Your task to perform on an android device: Open notification settings Image 0: 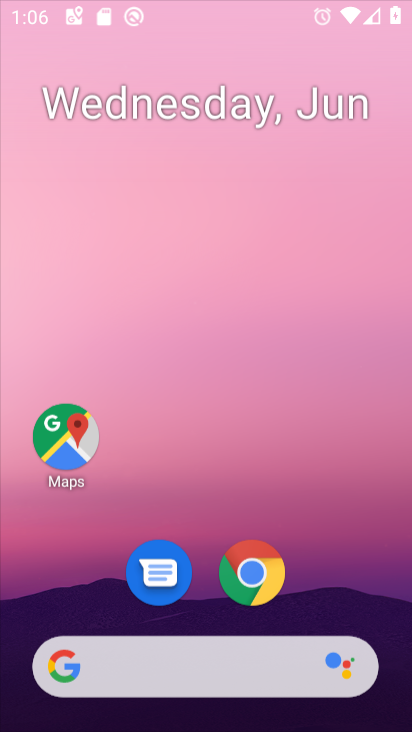
Step 0: drag from (214, 623) to (268, 82)
Your task to perform on an android device: Open notification settings Image 1: 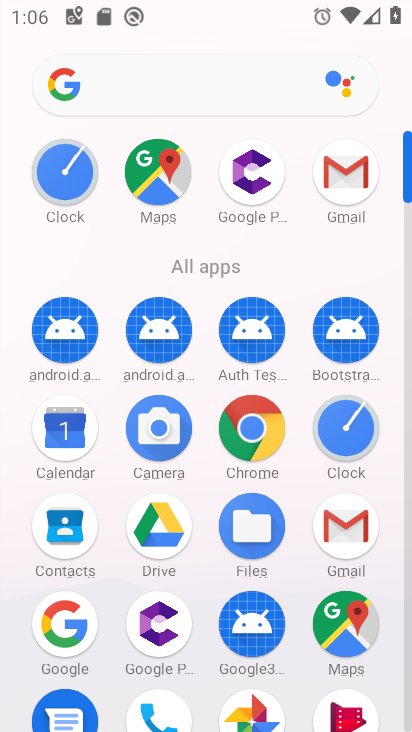
Step 1: drag from (226, 612) to (286, 81)
Your task to perform on an android device: Open notification settings Image 2: 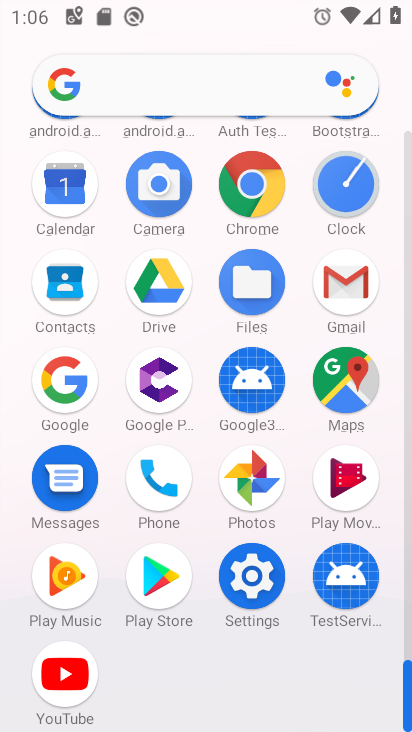
Step 2: click (261, 582)
Your task to perform on an android device: Open notification settings Image 3: 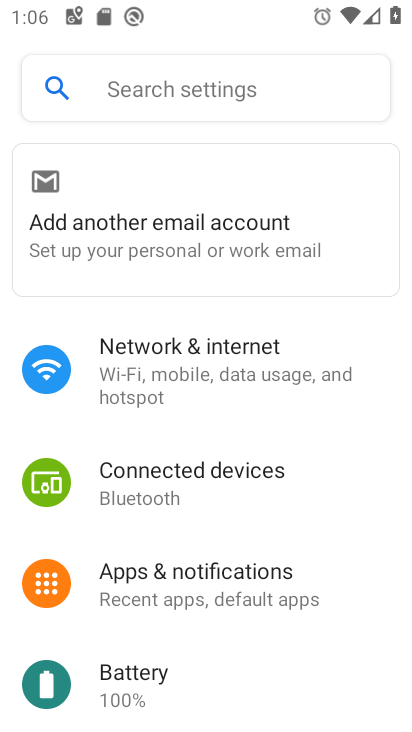
Step 3: click (191, 585)
Your task to perform on an android device: Open notification settings Image 4: 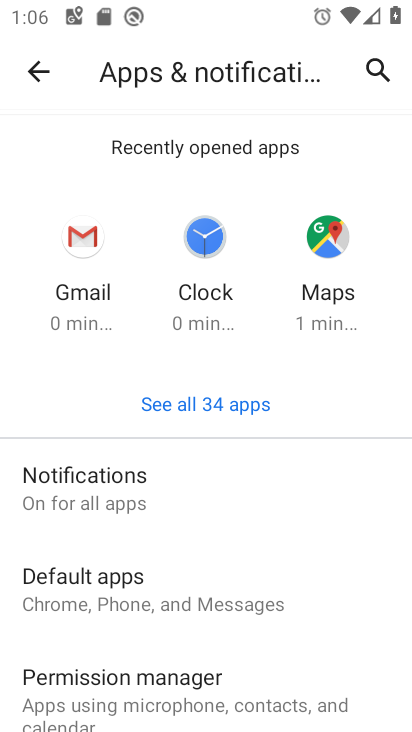
Step 4: click (116, 484)
Your task to perform on an android device: Open notification settings Image 5: 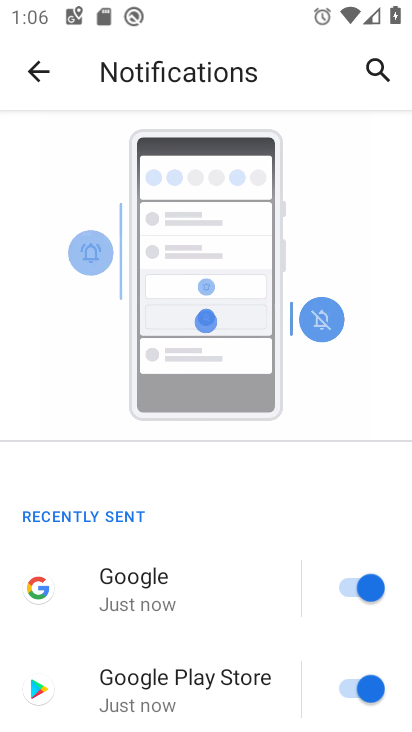
Step 5: task complete